Your task to perform on an android device: turn on javascript in the chrome app Image 0: 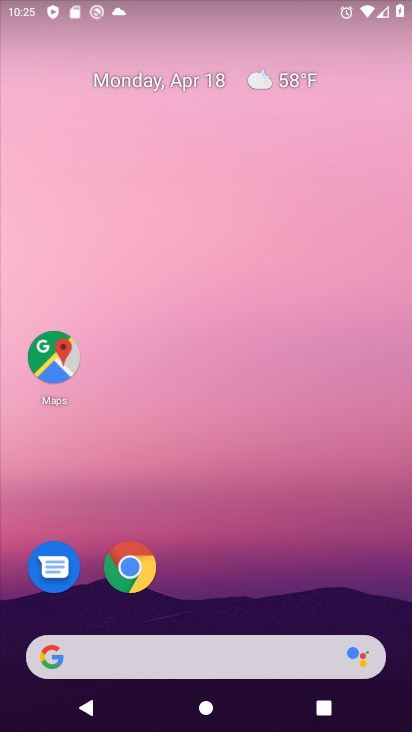
Step 0: click (124, 564)
Your task to perform on an android device: turn on javascript in the chrome app Image 1: 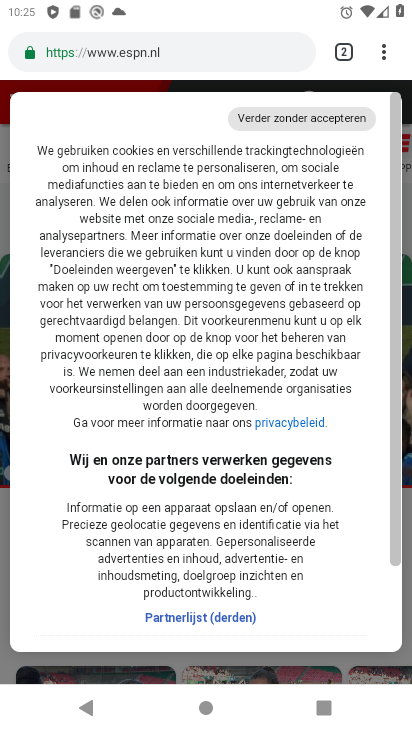
Step 1: click (381, 49)
Your task to perform on an android device: turn on javascript in the chrome app Image 2: 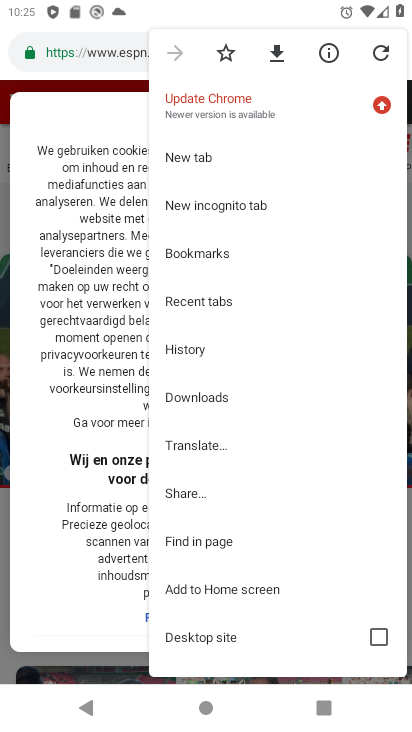
Step 2: drag from (240, 617) to (235, 215)
Your task to perform on an android device: turn on javascript in the chrome app Image 3: 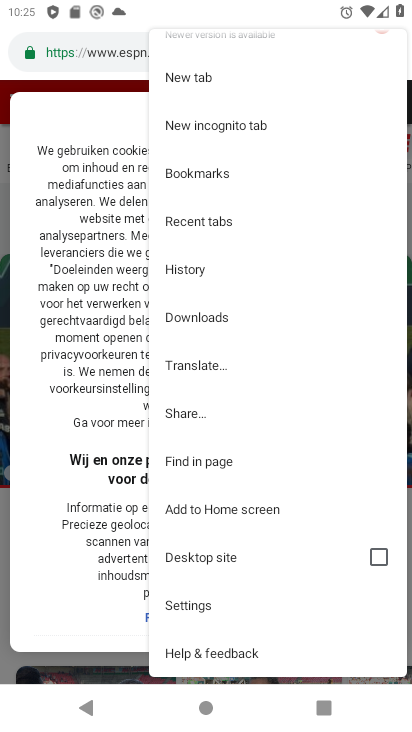
Step 3: click (192, 605)
Your task to perform on an android device: turn on javascript in the chrome app Image 4: 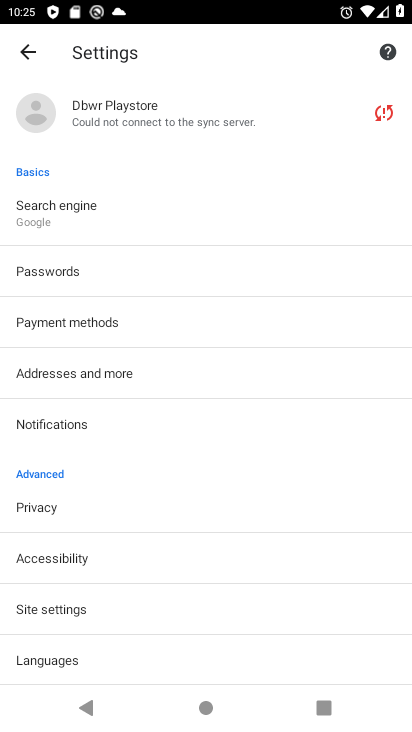
Step 4: click (74, 604)
Your task to perform on an android device: turn on javascript in the chrome app Image 5: 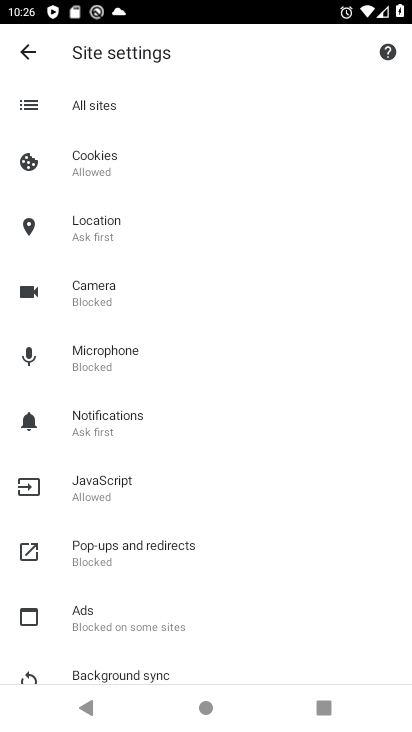
Step 5: click (100, 484)
Your task to perform on an android device: turn on javascript in the chrome app Image 6: 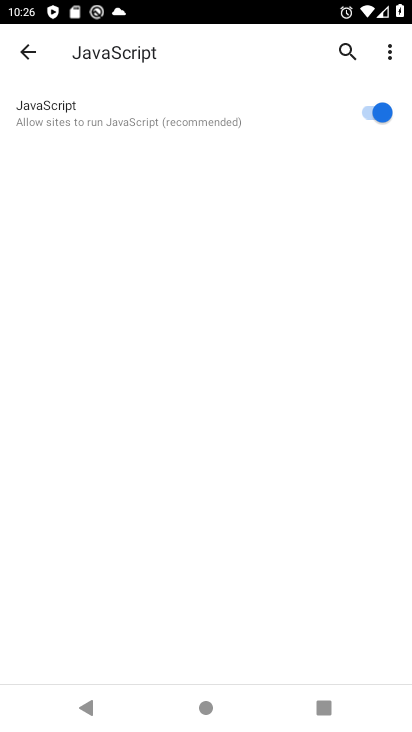
Step 6: task complete